Your task to perform on an android device: Open Reddit.com Image 0: 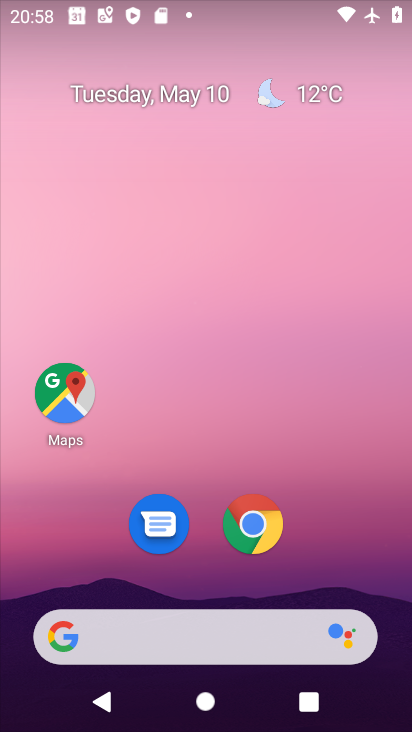
Step 0: click (275, 633)
Your task to perform on an android device: Open Reddit.com Image 1: 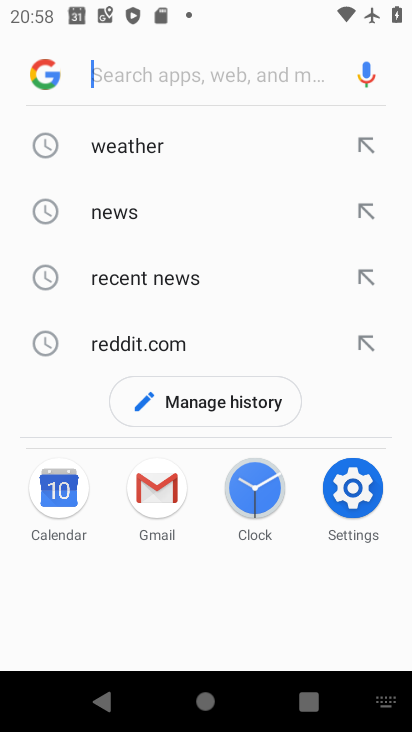
Step 1: click (81, 329)
Your task to perform on an android device: Open Reddit.com Image 2: 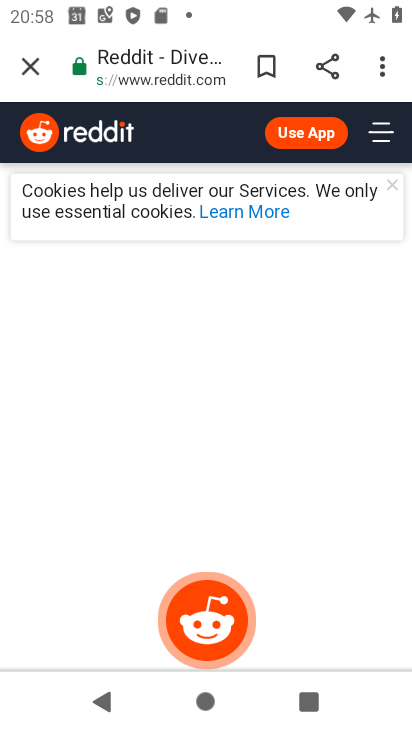
Step 2: task complete